Your task to perform on an android device: toggle notifications settings in the gmail app Image 0: 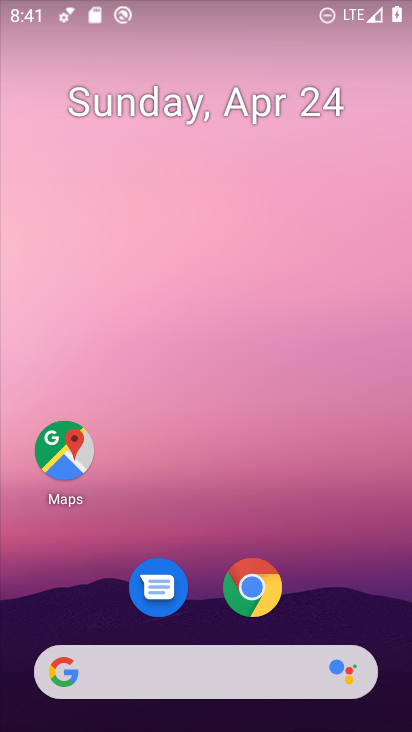
Step 0: drag from (379, 552) to (315, 111)
Your task to perform on an android device: toggle notifications settings in the gmail app Image 1: 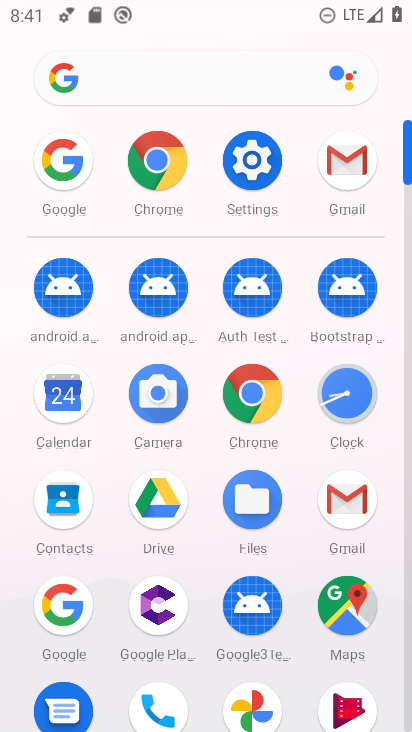
Step 1: click (343, 490)
Your task to perform on an android device: toggle notifications settings in the gmail app Image 2: 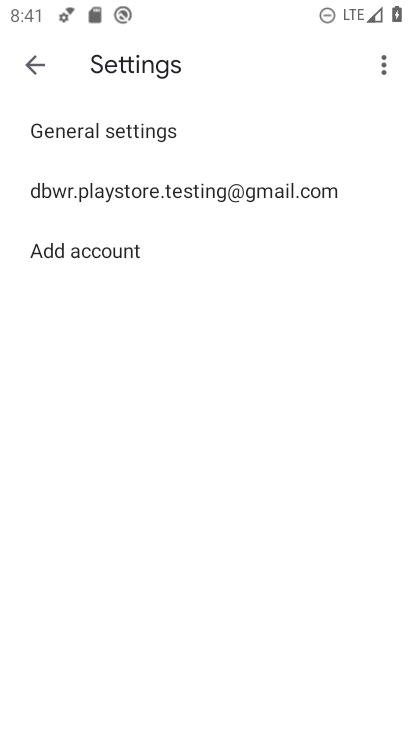
Step 2: click (186, 189)
Your task to perform on an android device: toggle notifications settings in the gmail app Image 3: 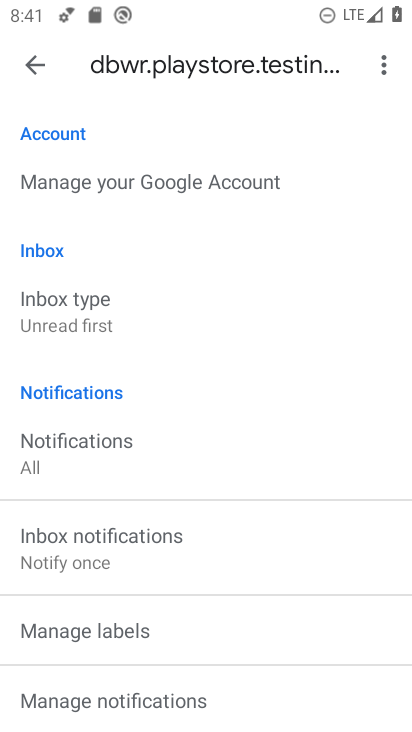
Step 3: click (90, 428)
Your task to perform on an android device: toggle notifications settings in the gmail app Image 4: 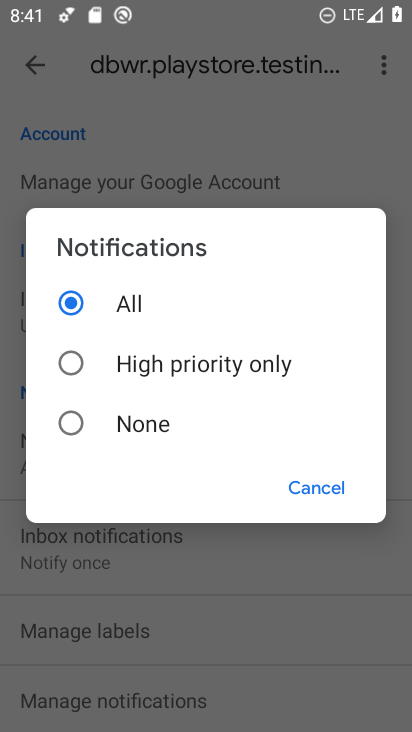
Step 4: click (132, 421)
Your task to perform on an android device: toggle notifications settings in the gmail app Image 5: 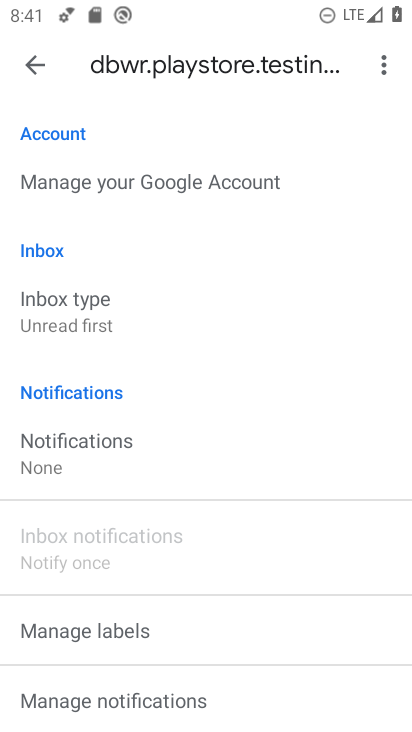
Step 5: task complete